Your task to perform on an android device: Search for the ikea billy bookcase Image 0: 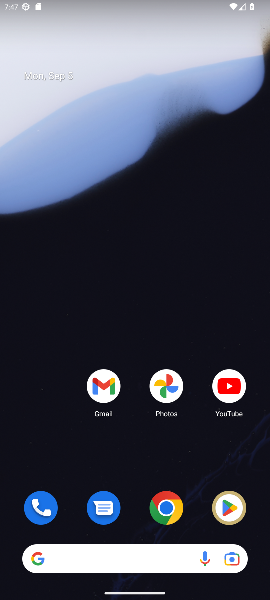
Step 0: drag from (139, 480) to (184, 27)
Your task to perform on an android device: Search for the ikea billy bookcase Image 1: 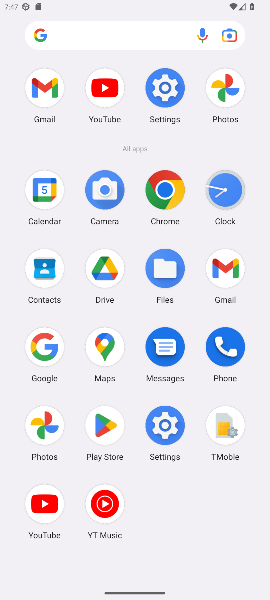
Step 1: click (160, 186)
Your task to perform on an android device: Search for the ikea billy bookcase Image 2: 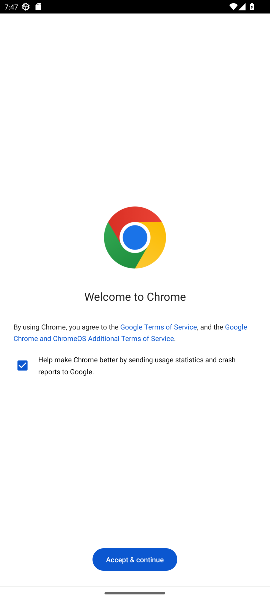
Step 2: click (126, 566)
Your task to perform on an android device: Search for the ikea billy bookcase Image 3: 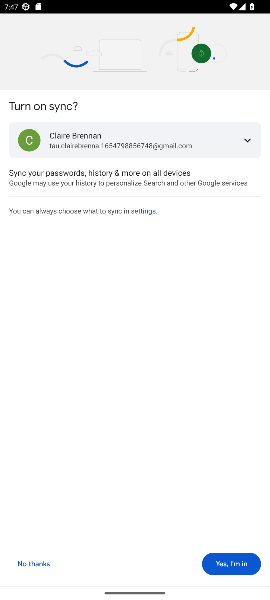
Step 3: click (232, 563)
Your task to perform on an android device: Search for the ikea billy bookcase Image 4: 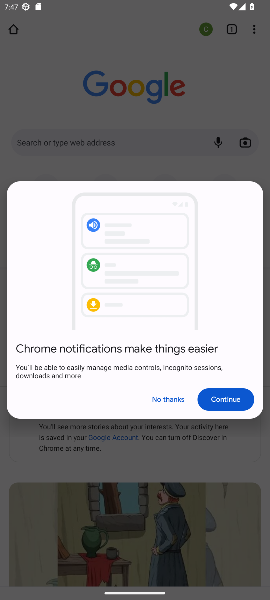
Step 4: click (222, 408)
Your task to perform on an android device: Search for the ikea billy bookcase Image 5: 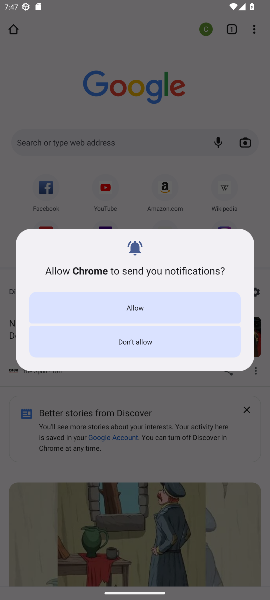
Step 5: click (131, 307)
Your task to perform on an android device: Search for the ikea billy bookcase Image 6: 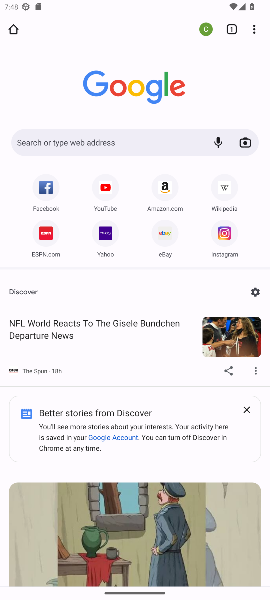
Step 6: click (66, 140)
Your task to perform on an android device: Search for the ikea billy bookcase Image 7: 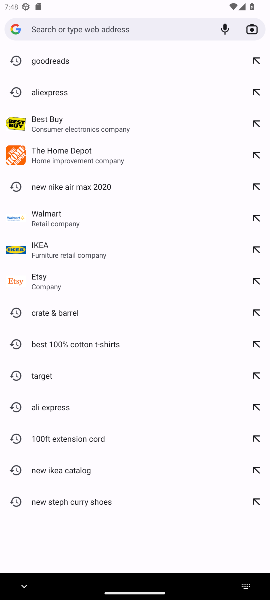
Step 7: click (101, 26)
Your task to perform on an android device: Search for the ikea billy bookcase Image 8: 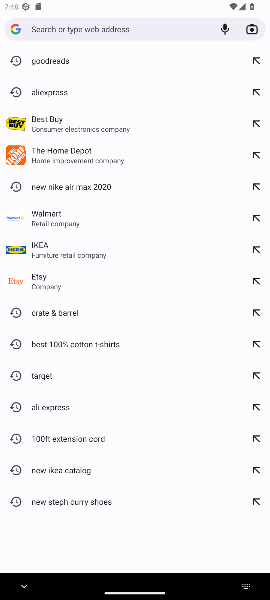
Step 8: type "ikea billy bookcase"
Your task to perform on an android device: Search for the ikea billy bookcase Image 9: 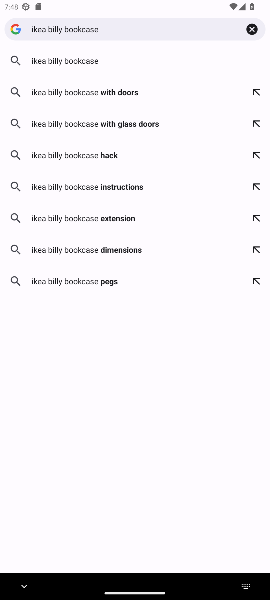
Step 9: click (120, 60)
Your task to perform on an android device: Search for the ikea billy bookcase Image 10: 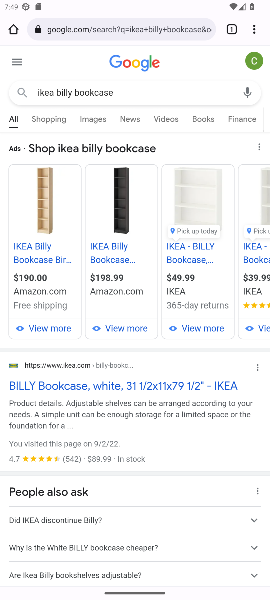
Step 10: click (176, 190)
Your task to perform on an android device: Search for the ikea billy bookcase Image 11: 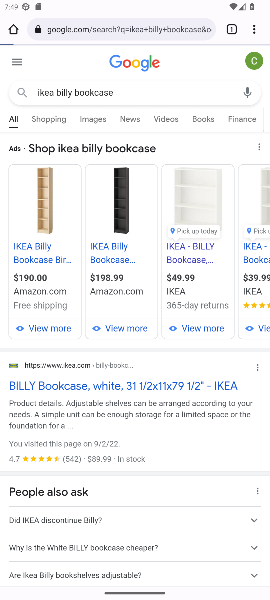
Step 11: drag from (124, 533) to (112, 58)
Your task to perform on an android device: Search for the ikea billy bookcase Image 12: 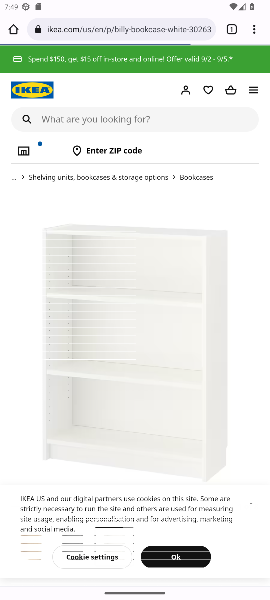
Step 12: press back button
Your task to perform on an android device: Search for the ikea billy bookcase Image 13: 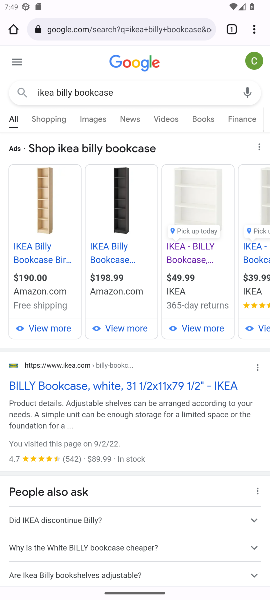
Step 13: drag from (151, 479) to (144, 54)
Your task to perform on an android device: Search for the ikea billy bookcase Image 14: 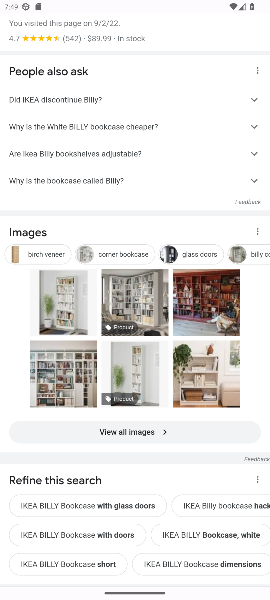
Step 14: drag from (149, 541) to (164, 131)
Your task to perform on an android device: Search for the ikea billy bookcase Image 15: 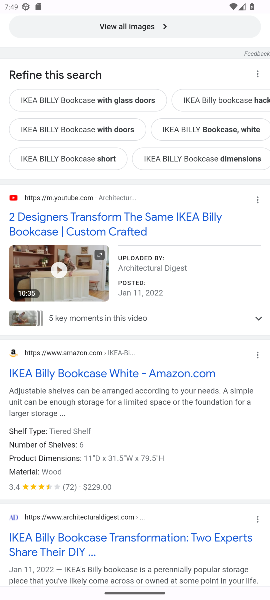
Step 15: drag from (155, 514) to (142, 0)
Your task to perform on an android device: Search for the ikea billy bookcase Image 16: 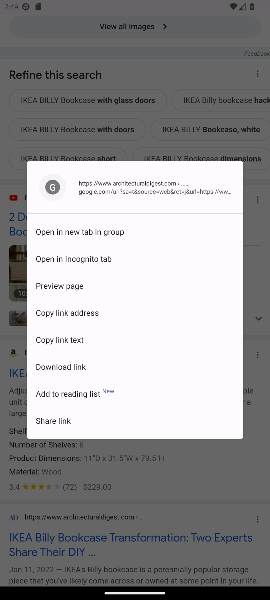
Step 16: click (144, 508)
Your task to perform on an android device: Search for the ikea billy bookcase Image 17: 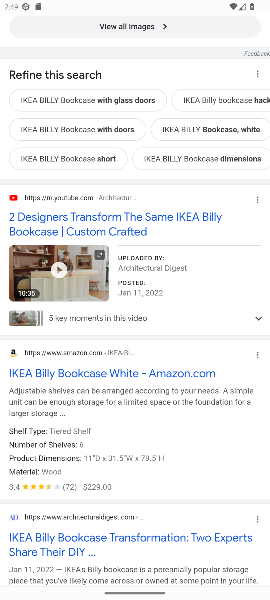
Step 17: drag from (177, 503) to (171, 129)
Your task to perform on an android device: Search for the ikea billy bookcase Image 18: 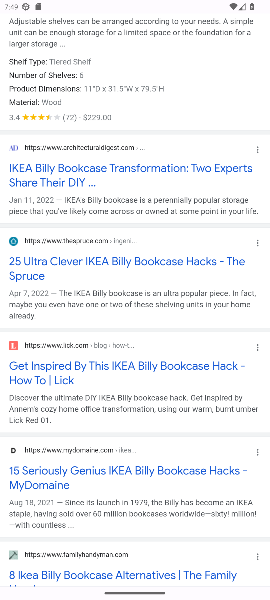
Step 18: drag from (141, 41) to (194, 596)
Your task to perform on an android device: Search for the ikea billy bookcase Image 19: 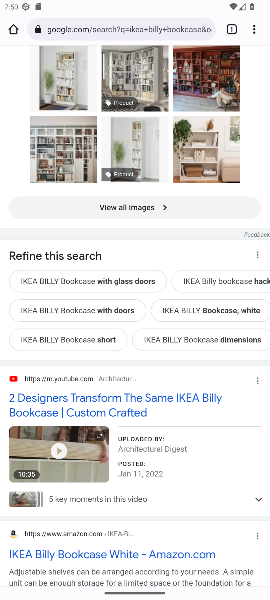
Step 19: drag from (18, 205) to (75, 553)
Your task to perform on an android device: Search for the ikea billy bookcase Image 20: 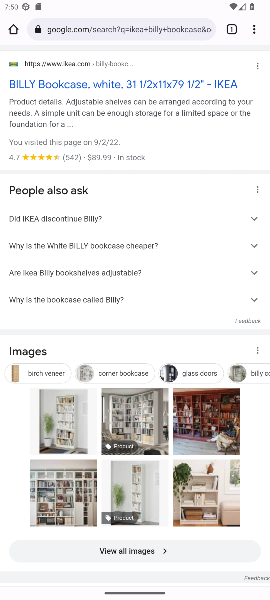
Step 20: click (112, 85)
Your task to perform on an android device: Search for the ikea billy bookcase Image 21: 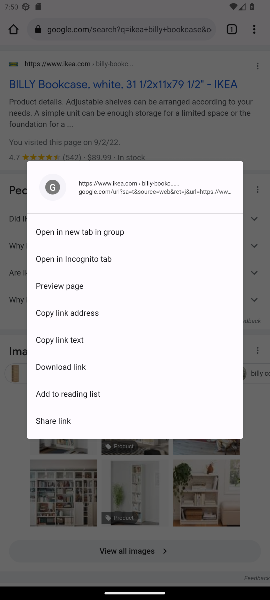
Step 21: click (24, 157)
Your task to perform on an android device: Search for the ikea billy bookcase Image 22: 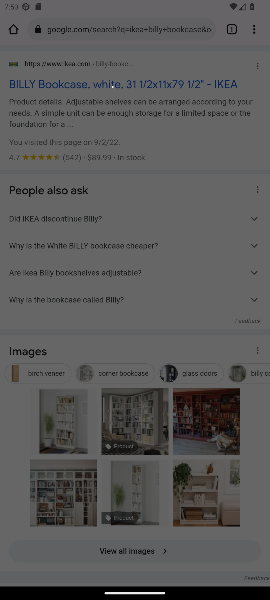
Step 22: click (45, 85)
Your task to perform on an android device: Search for the ikea billy bookcase Image 23: 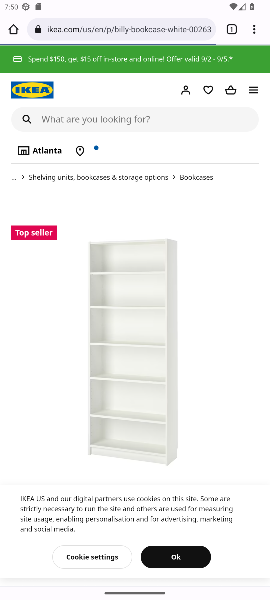
Step 23: drag from (42, 452) to (45, 106)
Your task to perform on an android device: Search for the ikea billy bookcase Image 24: 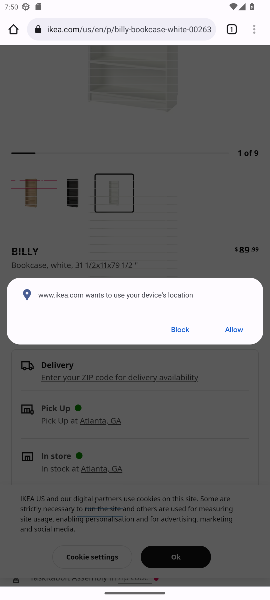
Step 24: click (235, 330)
Your task to perform on an android device: Search for the ikea billy bookcase Image 25: 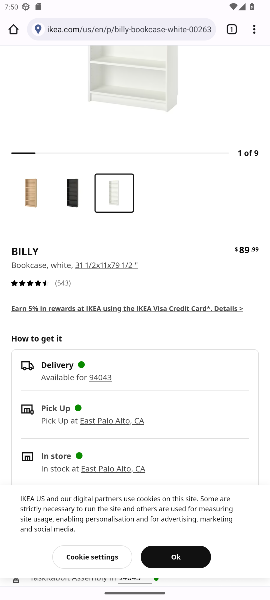
Step 25: click (176, 557)
Your task to perform on an android device: Search for the ikea billy bookcase Image 26: 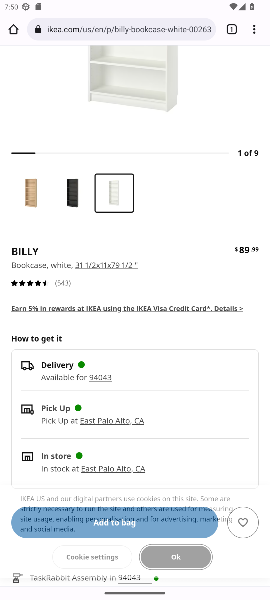
Step 26: click (175, 560)
Your task to perform on an android device: Search for the ikea billy bookcase Image 27: 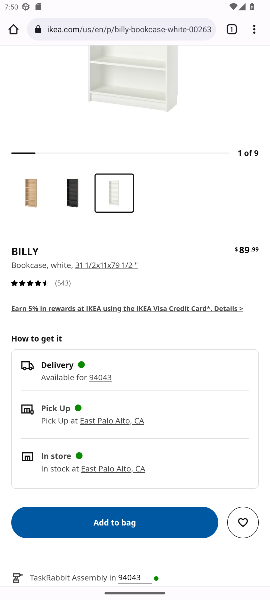
Step 27: task complete